Your task to perform on an android device: Open the Play Movies app and select the watchlist tab. Image 0: 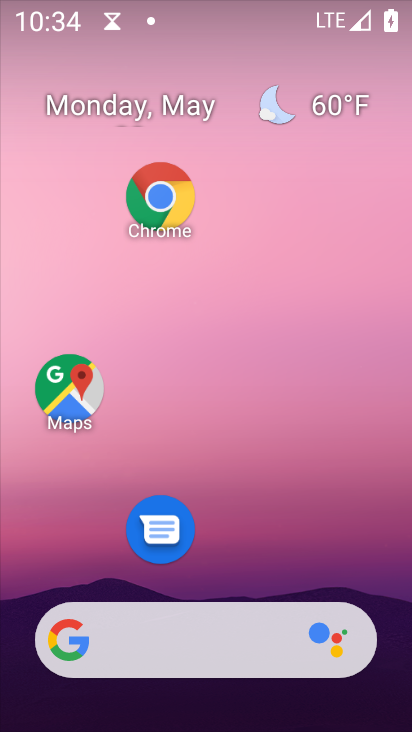
Step 0: drag from (210, 568) to (149, 7)
Your task to perform on an android device: Open the Play Movies app and select the watchlist tab. Image 1: 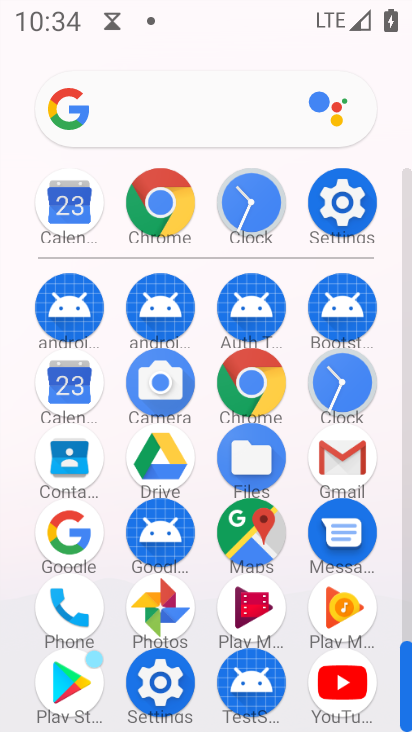
Step 1: drag from (270, 664) to (239, 290)
Your task to perform on an android device: Open the Play Movies app and select the watchlist tab. Image 2: 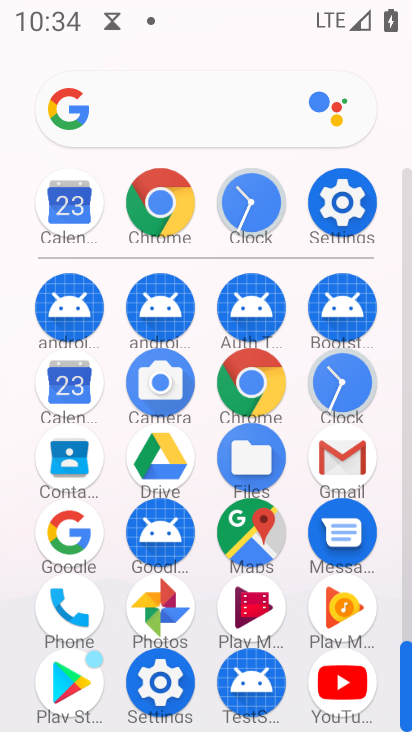
Step 2: click (247, 578)
Your task to perform on an android device: Open the Play Movies app and select the watchlist tab. Image 3: 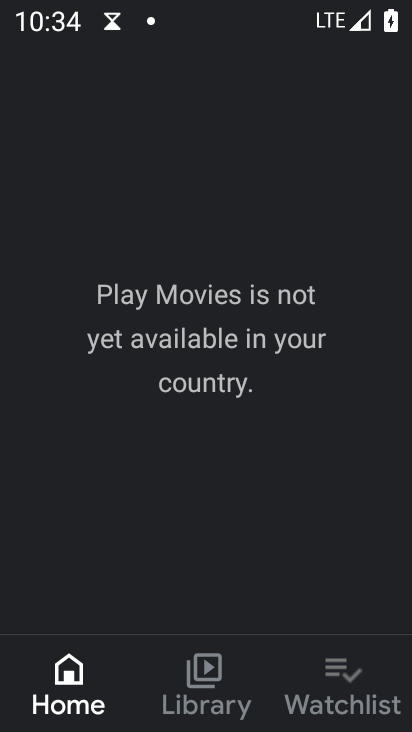
Step 3: click (329, 684)
Your task to perform on an android device: Open the Play Movies app and select the watchlist tab. Image 4: 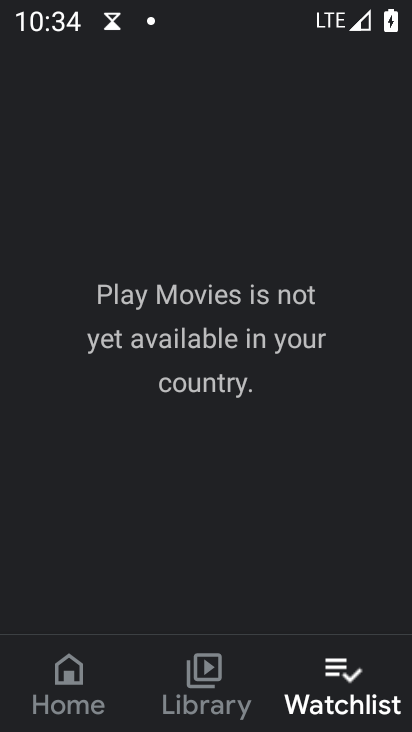
Step 4: task complete